Your task to perform on an android device: delete a single message in the gmail app Image 0: 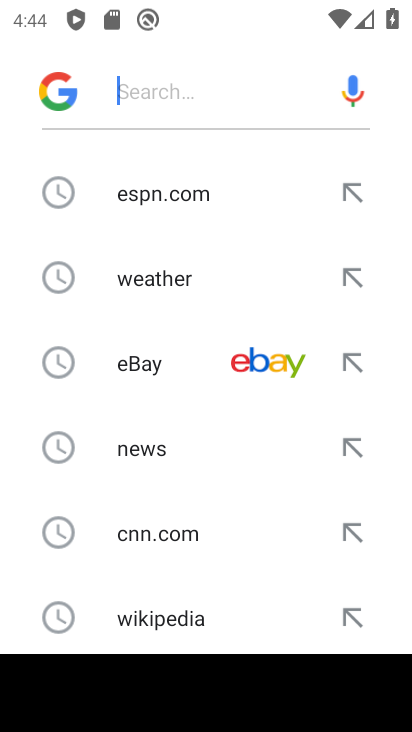
Step 0: press home button
Your task to perform on an android device: delete a single message in the gmail app Image 1: 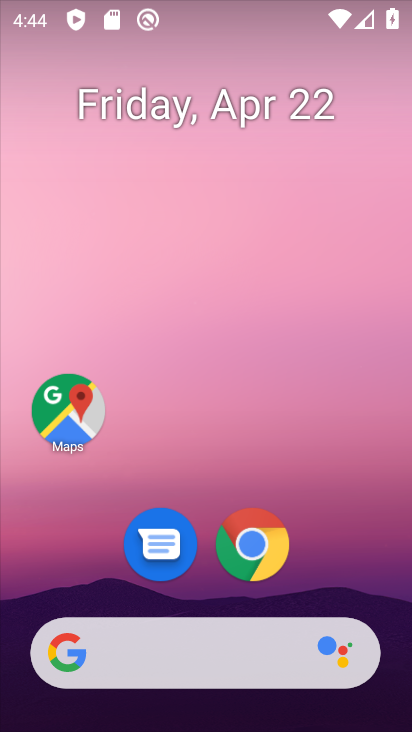
Step 1: drag from (173, 611) to (129, 230)
Your task to perform on an android device: delete a single message in the gmail app Image 2: 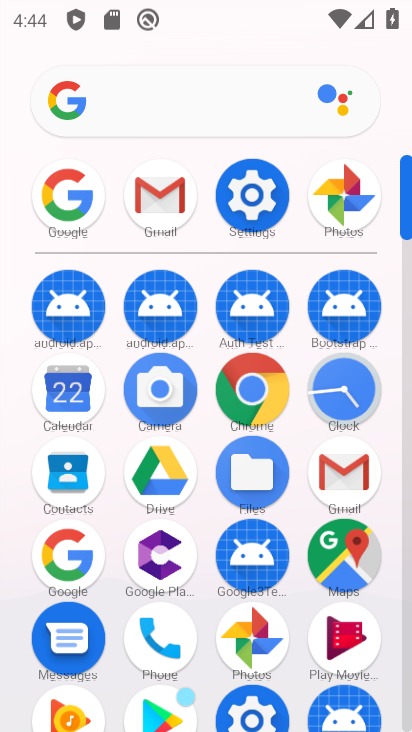
Step 2: click (148, 213)
Your task to perform on an android device: delete a single message in the gmail app Image 3: 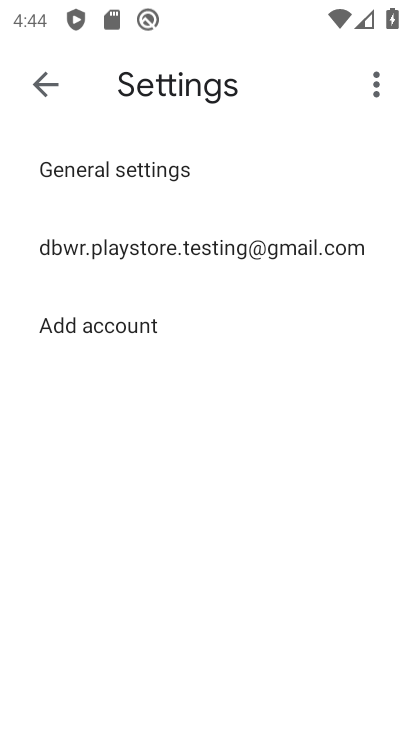
Step 3: click (33, 85)
Your task to perform on an android device: delete a single message in the gmail app Image 4: 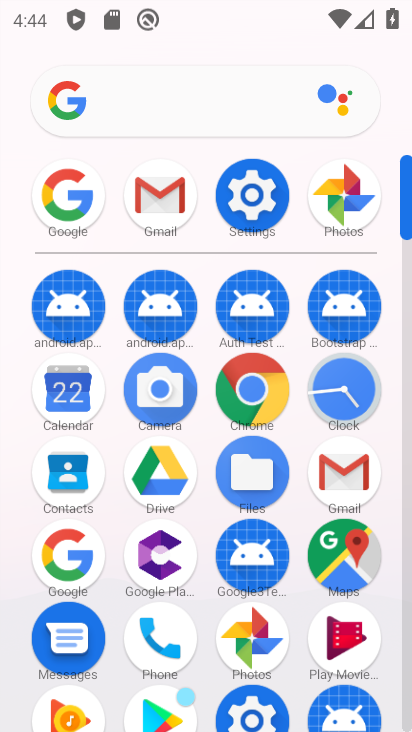
Step 4: click (164, 187)
Your task to perform on an android device: delete a single message in the gmail app Image 5: 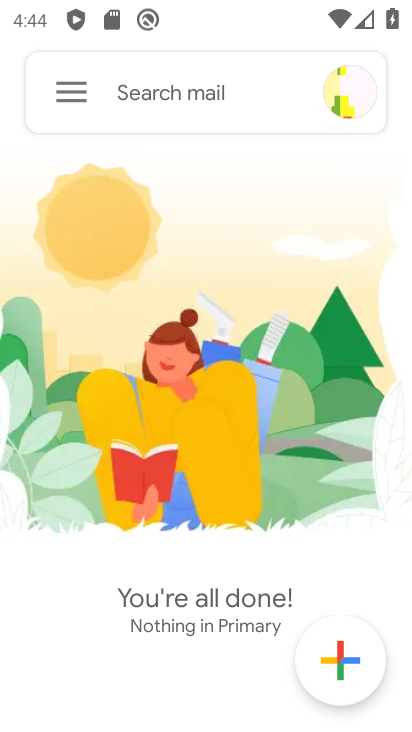
Step 5: task complete